Your task to perform on an android device: set the timer Image 0: 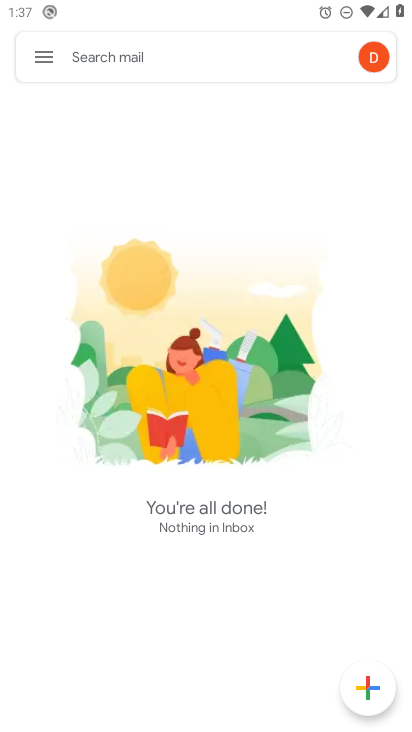
Step 0: press home button
Your task to perform on an android device: set the timer Image 1: 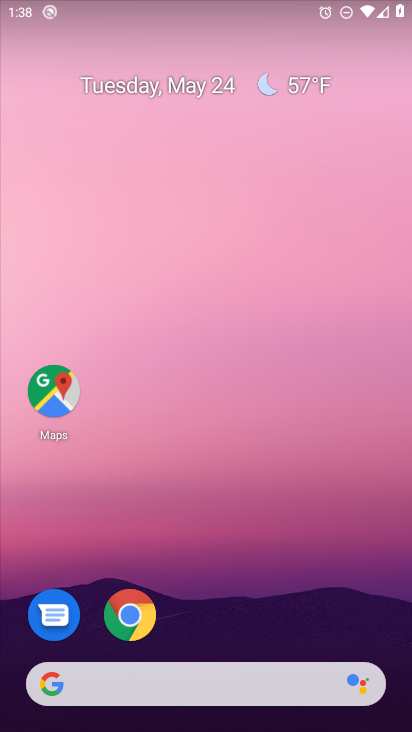
Step 1: drag from (202, 648) to (220, 209)
Your task to perform on an android device: set the timer Image 2: 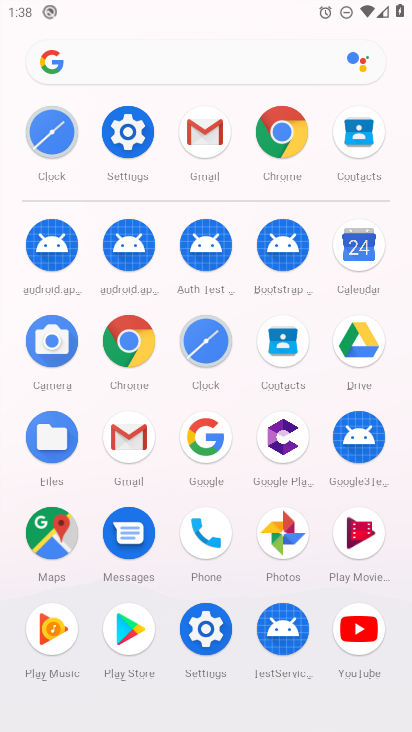
Step 2: click (197, 355)
Your task to perform on an android device: set the timer Image 3: 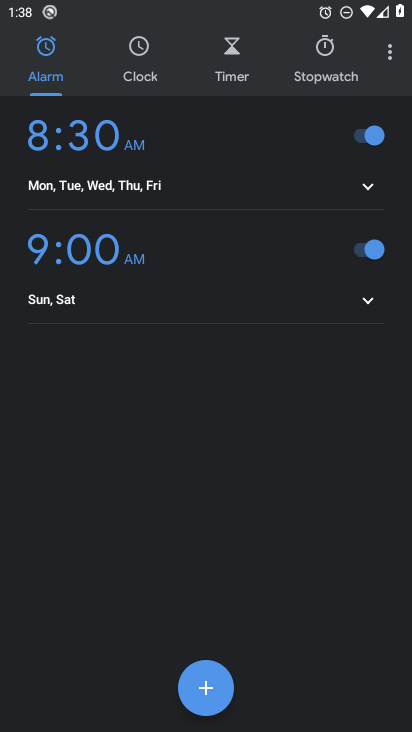
Step 3: click (224, 49)
Your task to perform on an android device: set the timer Image 4: 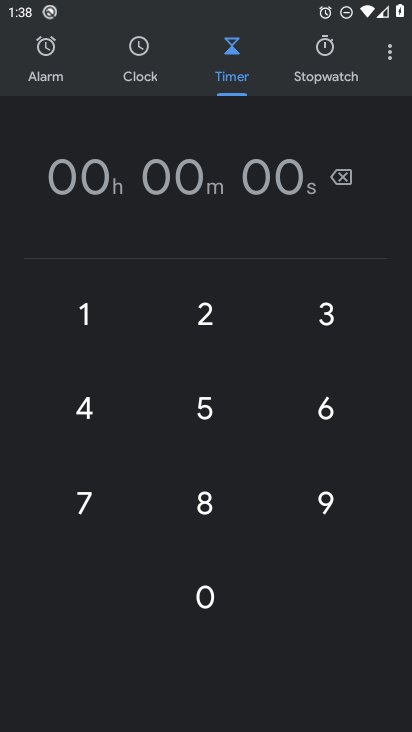
Step 4: drag from (212, 597) to (212, 555)
Your task to perform on an android device: set the timer Image 5: 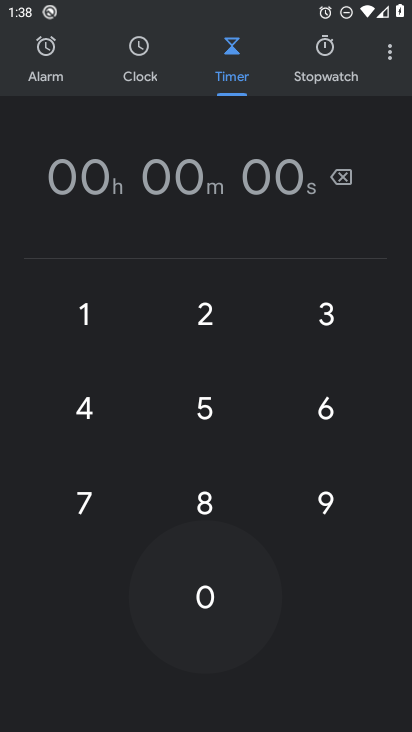
Step 5: click (193, 403)
Your task to perform on an android device: set the timer Image 6: 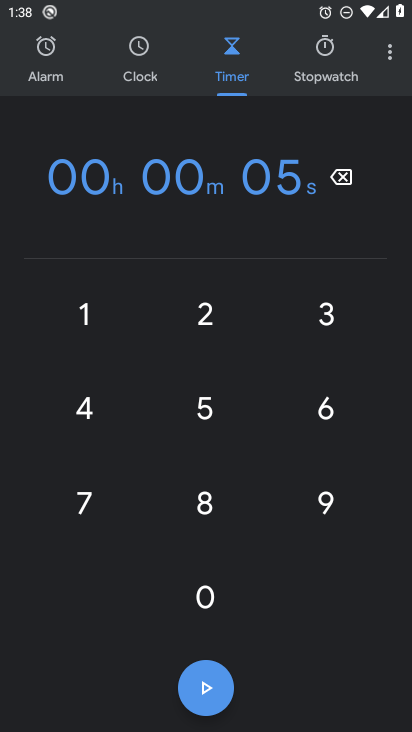
Step 6: click (205, 590)
Your task to perform on an android device: set the timer Image 7: 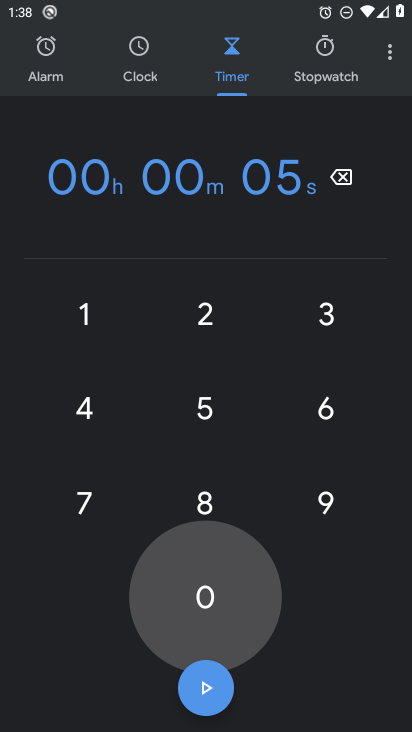
Step 7: click (205, 591)
Your task to perform on an android device: set the timer Image 8: 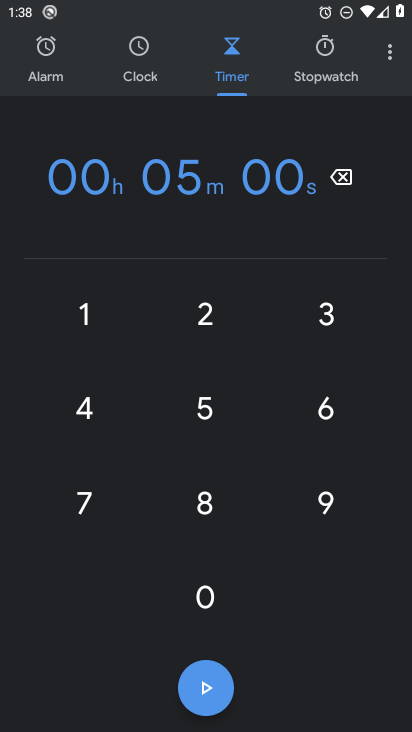
Step 8: click (208, 695)
Your task to perform on an android device: set the timer Image 9: 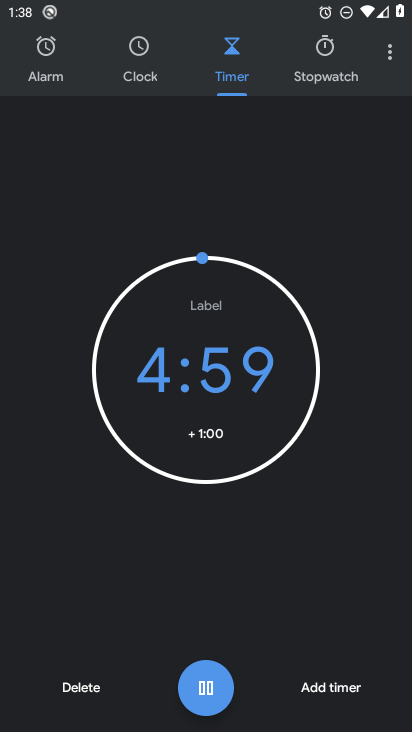
Step 9: task complete